Your task to perform on an android device: delete the emails in spam in the gmail app Image 0: 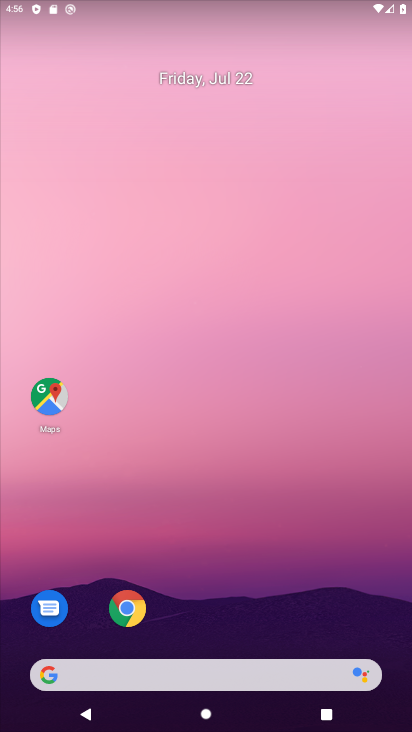
Step 0: drag from (219, 400) to (225, 15)
Your task to perform on an android device: delete the emails in spam in the gmail app Image 1: 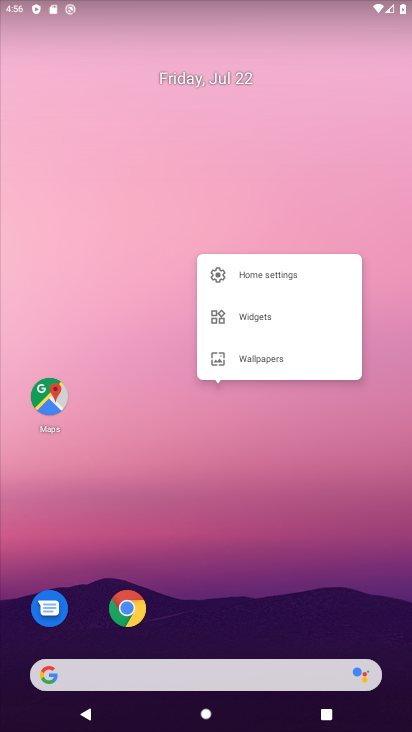
Step 1: drag from (169, 626) to (232, 13)
Your task to perform on an android device: delete the emails in spam in the gmail app Image 2: 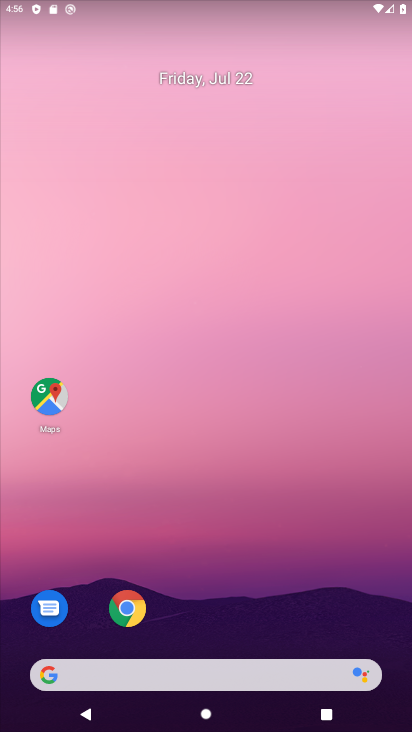
Step 2: drag from (190, 630) to (230, 163)
Your task to perform on an android device: delete the emails in spam in the gmail app Image 3: 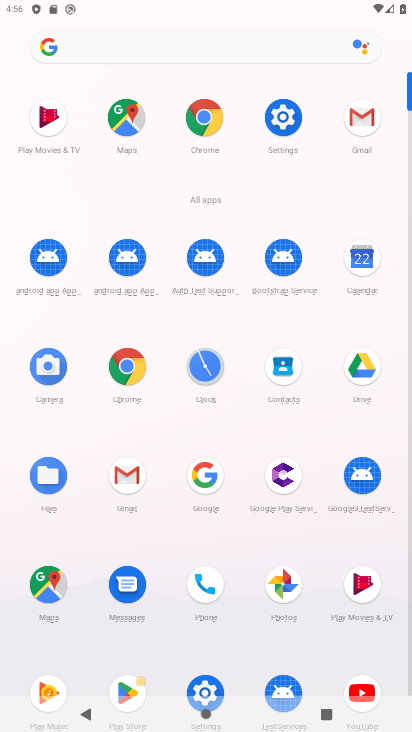
Step 3: click (349, 135)
Your task to perform on an android device: delete the emails in spam in the gmail app Image 4: 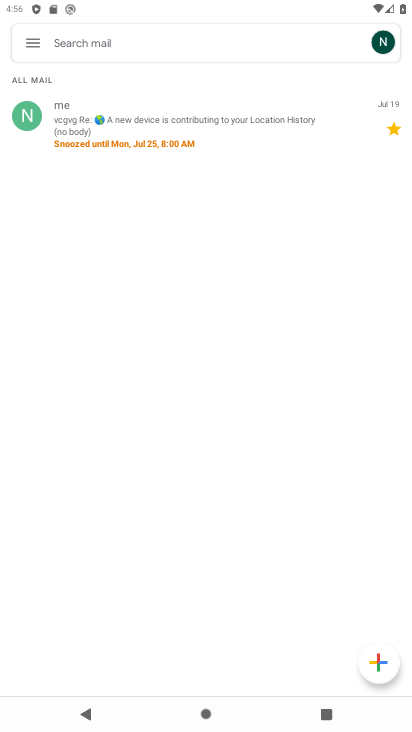
Step 4: click (41, 55)
Your task to perform on an android device: delete the emails in spam in the gmail app Image 5: 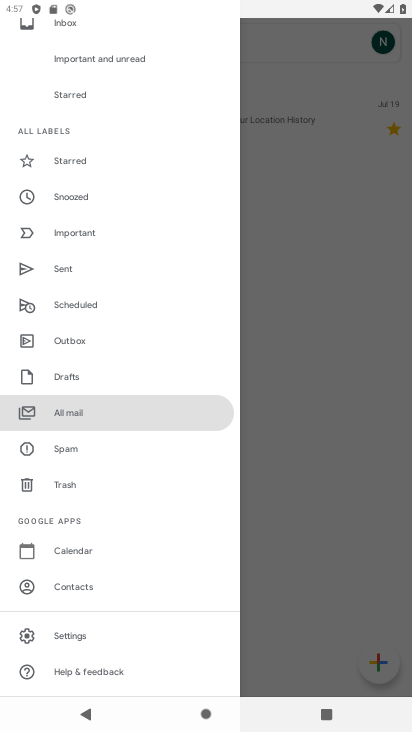
Step 5: click (101, 448)
Your task to perform on an android device: delete the emails in spam in the gmail app Image 6: 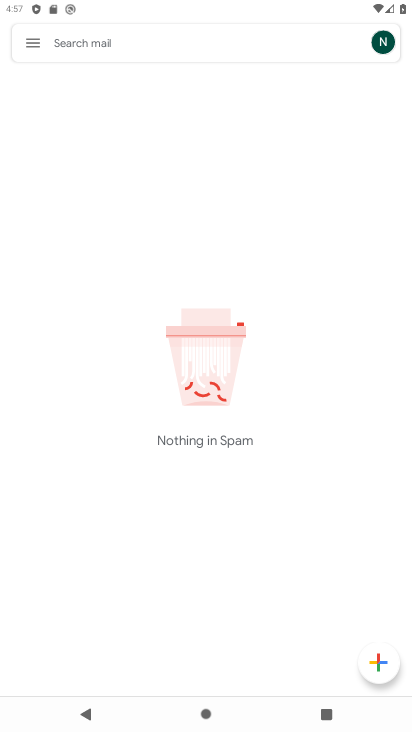
Step 6: task complete